Your task to perform on an android device: Open settings on Google Maps Image 0: 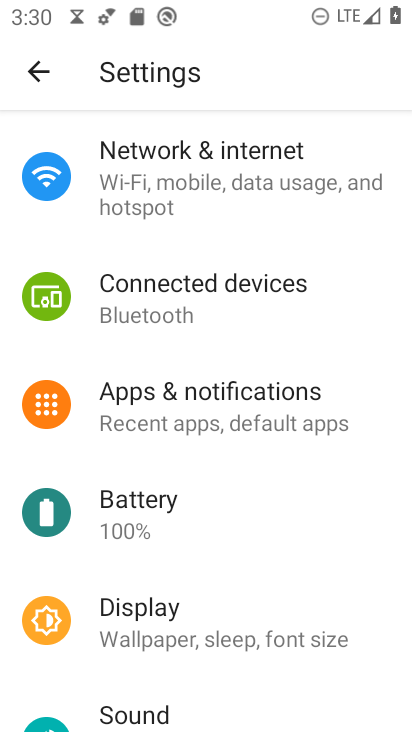
Step 0: press home button
Your task to perform on an android device: Open settings on Google Maps Image 1: 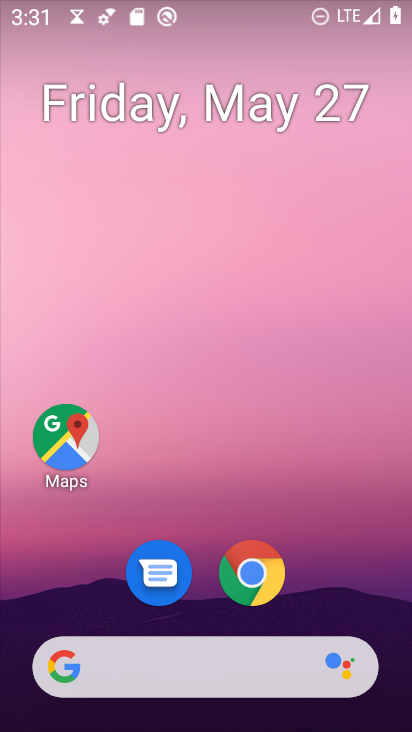
Step 1: click (64, 443)
Your task to perform on an android device: Open settings on Google Maps Image 2: 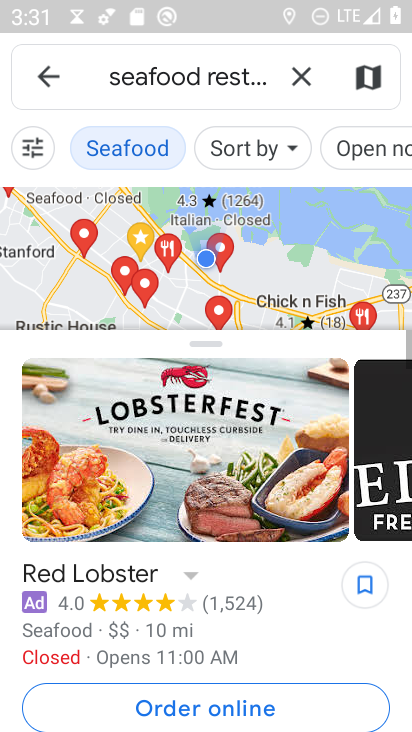
Step 2: click (42, 71)
Your task to perform on an android device: Open settings on Google Maps Image 3: 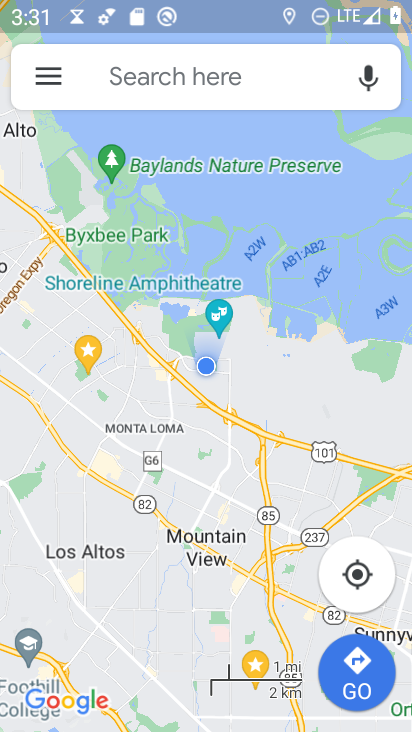
Step 3: click (42, 71)
Your task to perform on an android device: Open settings on Google Maps Image 4: 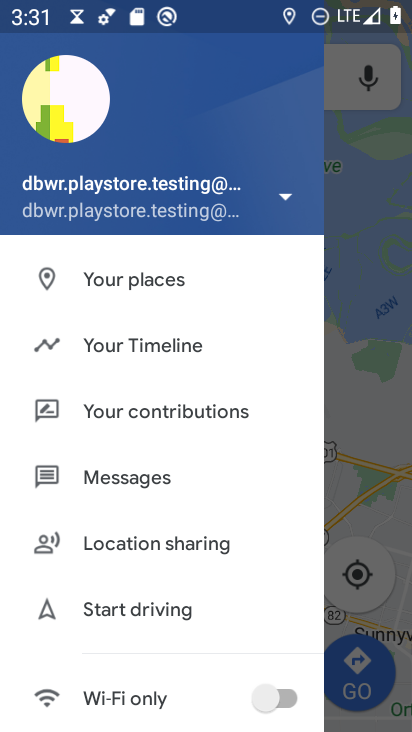
Step 4: drag from (171, 664) to (119, 255)
Your task to perform on an android device: Open settings on Google Maps Image 5: 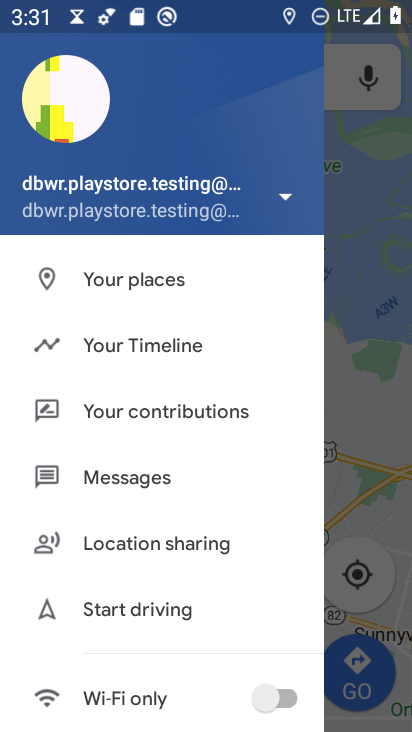
Step 5: drag from (119, 644) to (134, 141)
Your task to perform on an android device: Open settings on Google Maps Image 6: 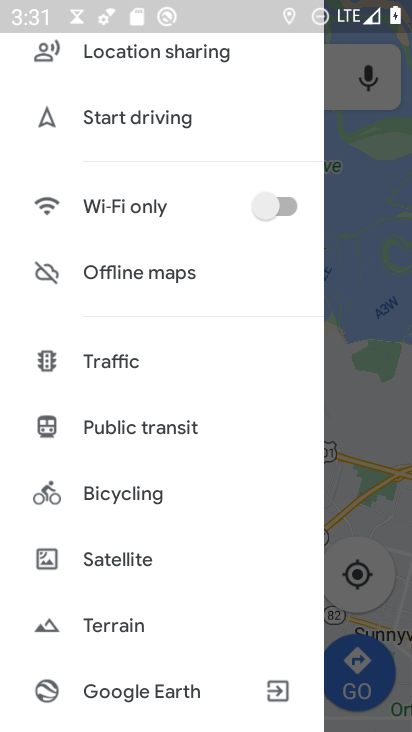
Step 6: drag from (152, 626) to (154, 244)
Your task to perform on an android device: Open settings on Google Maps Image 7: 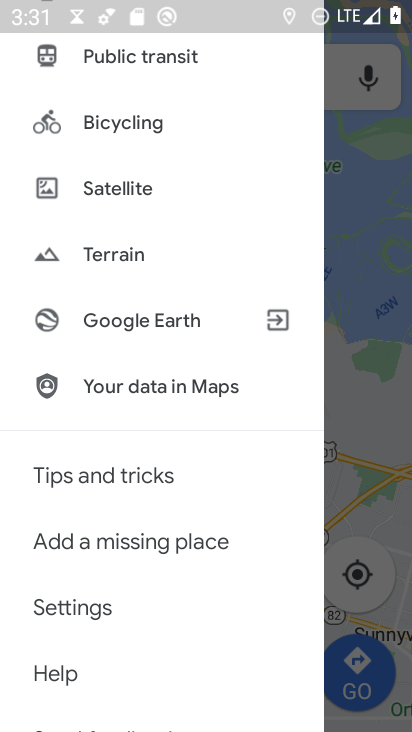
Step 7: click (84, 606)
Your task to perform on an android device: Open settings on Google Maps Image 8: 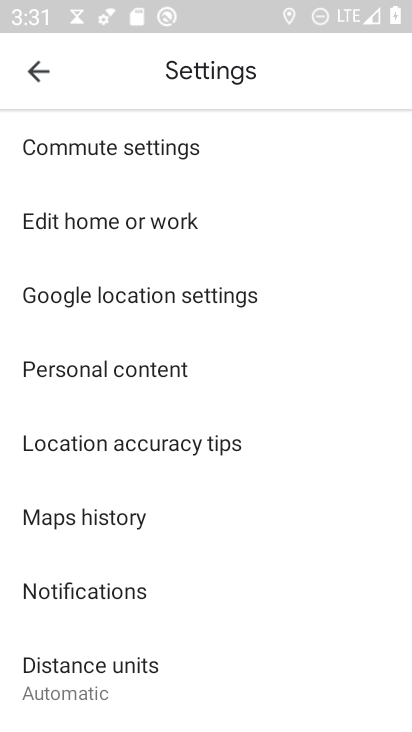
Step 8: task complete